Your task to perform on an android device: Go to location settings Image 0: 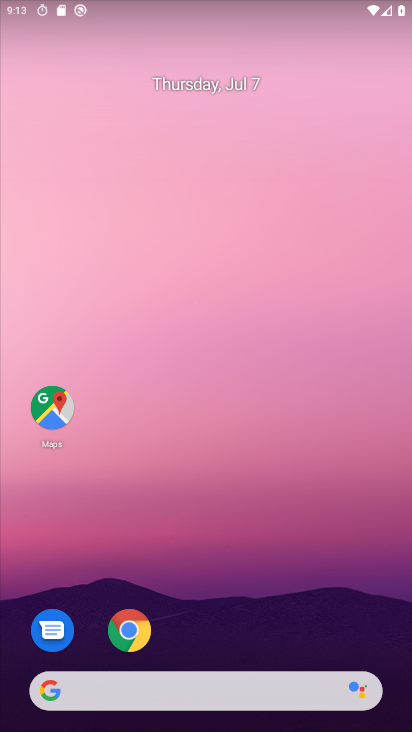
Step 0: drag from (12, 712) to (317, 33)
Your task to perform on an android device: Go to location settings Image 1: 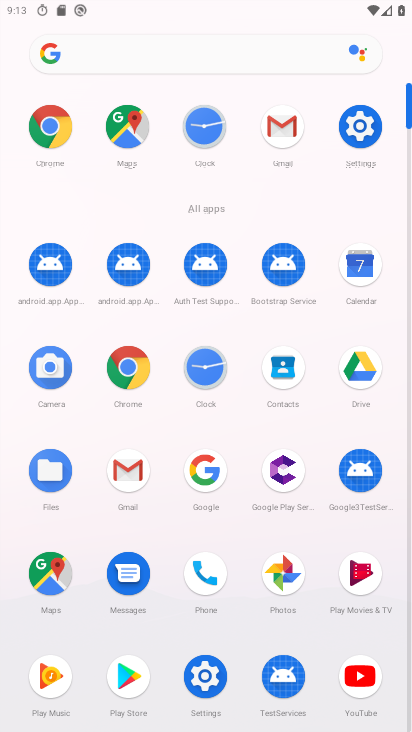
Step 1: click (206, 679)
Your task to perform on an android device: Go to location settings Image 2: 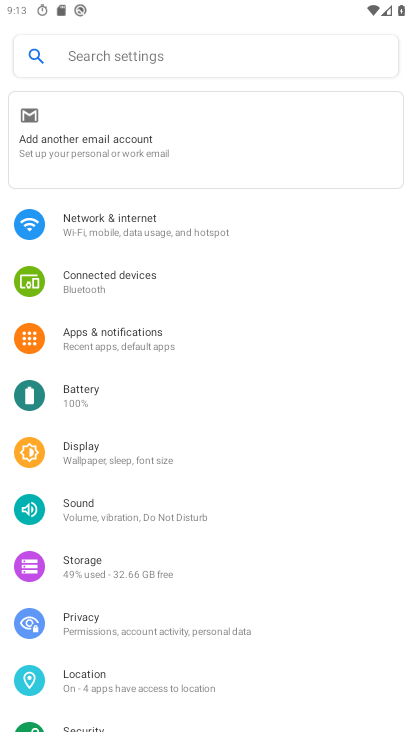
Step 2: click (83, 678)
Your task to perform on an android device: Go to location settings Image 3: 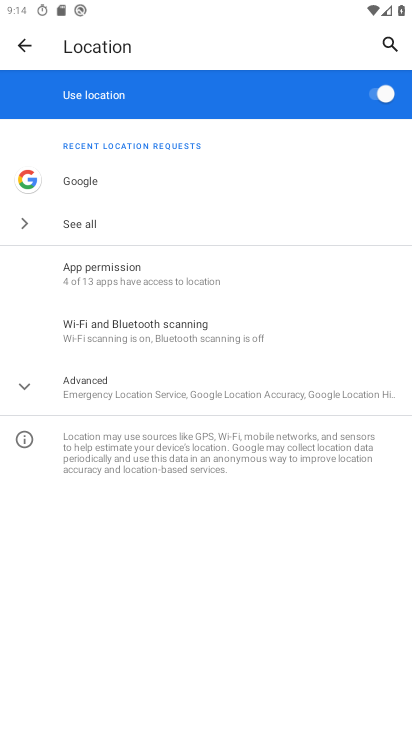
Step 3: task complete